Your task to perform on an android device: Open calendar and show me the fourth week of next month Image 0: 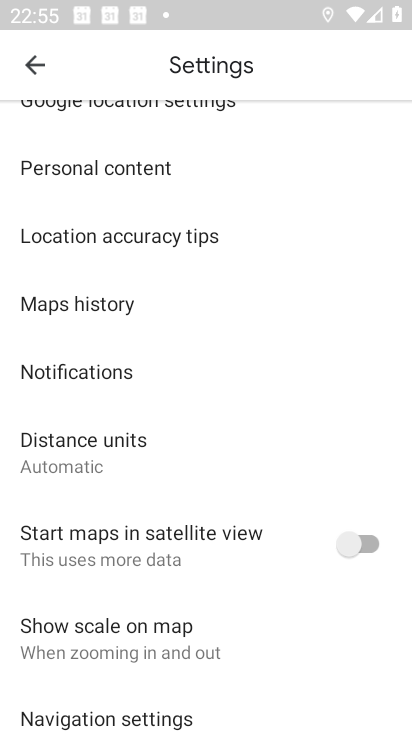
Step 0: press home button
Your task to perform on an android device: Open calendar and show me the fourth week of next month Image 1: 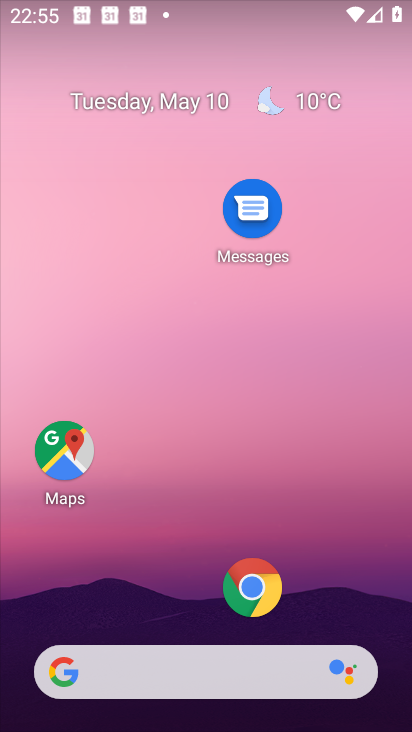
Step 1: drag from (178, 577) to (196, 128)
Your task to perform on an android device: Open calendar and show me the fourth week of next month Image 2: 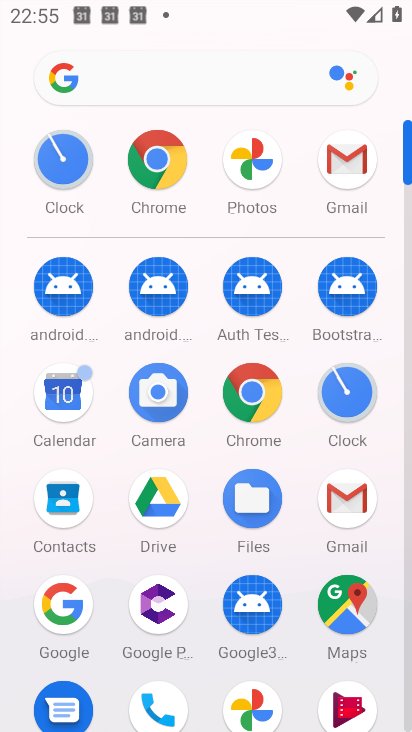
Step 2: click (70, 430)
Your task to perform on an android device: Open calendar and show me the fourth week of next month Image 3: 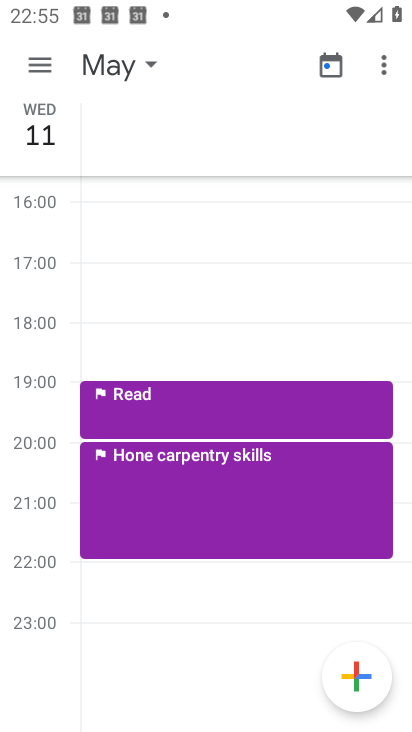
Step 3: click (41, 62)
Your task to perform on an android device: Open calendar and show me the fourth week of next month Image 4: 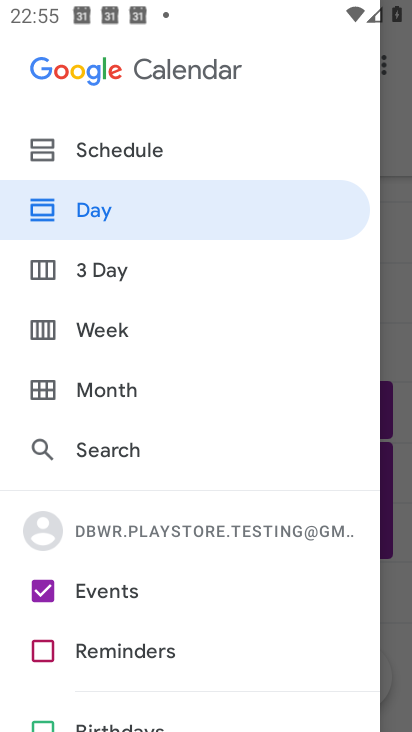
Step 4: click (104, 340)
Your task to perform on an android device: Open calendar and show me the fourth week of next month Image 5: 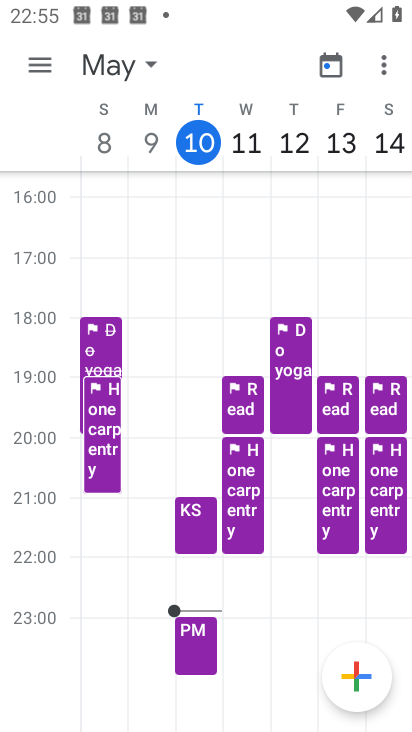
Step 5: task complete